Your task to perform on an android device: turn off translation in the chrome app Image 0: 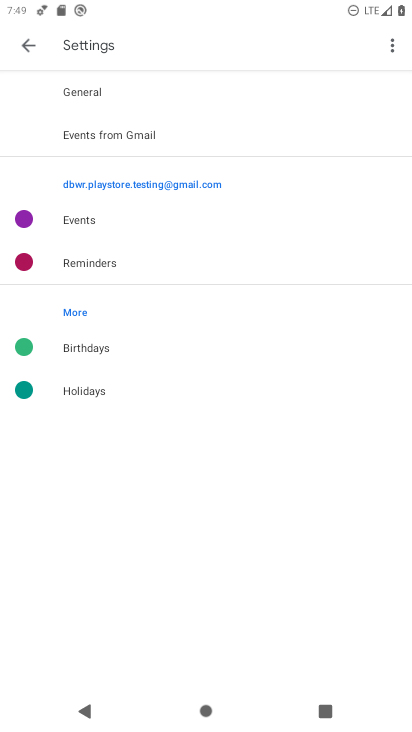
Step 0: press home button
Your task to perform on an android device: turn off translation in the chrome app Image 1: 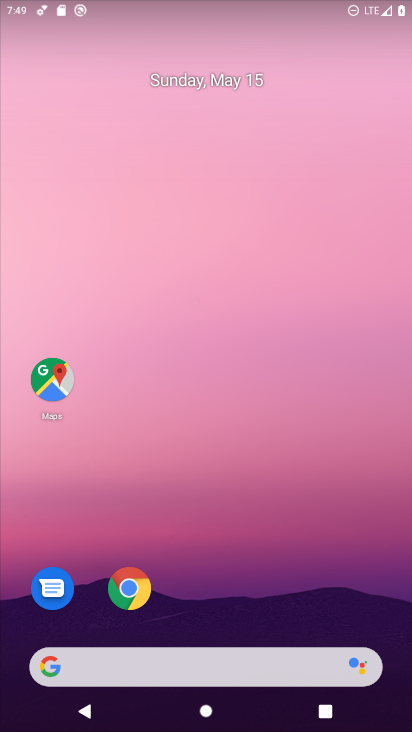
Step 1: drag from (340, 594) to (263, 87)
Your task to perform on an android device: turn off translation in the chrome app Image 2: 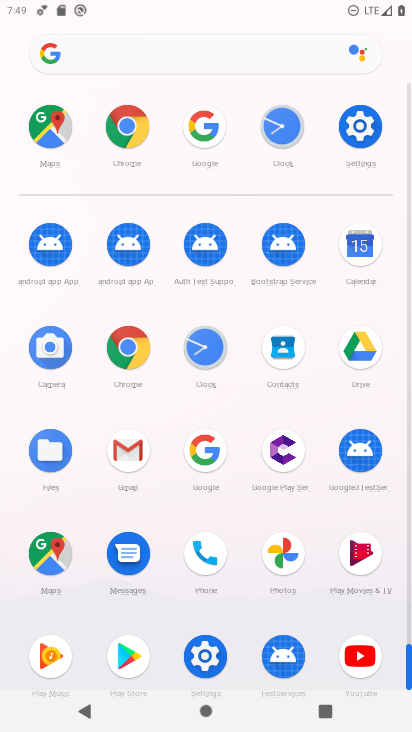
Step 2: click (136, 342)
Your task to perform on an android device: turn off translation in the chrome app Image 3: 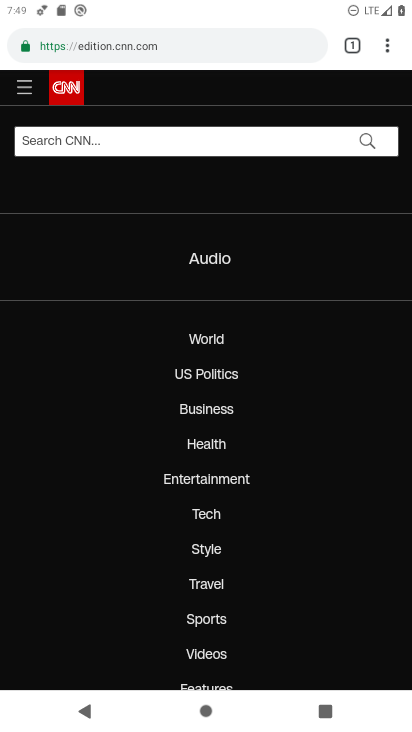
Step 3: press back button
Your task to perform on an android device: turn off translation in the chrome app Image 4: 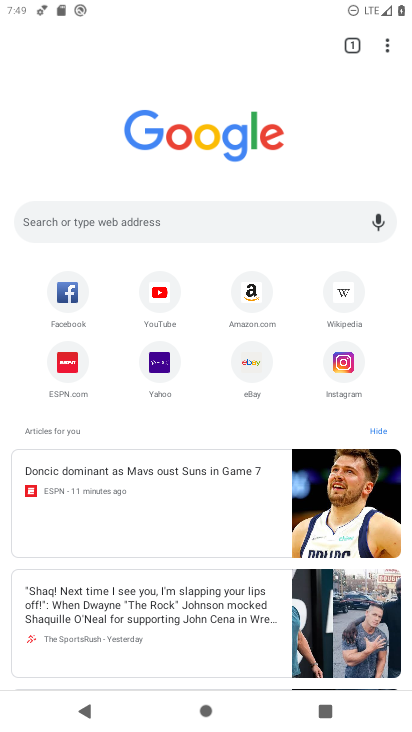
Step 4: click (388, 41)
Your task to perform on an android device: turn off translation in the chrome app Image 5: 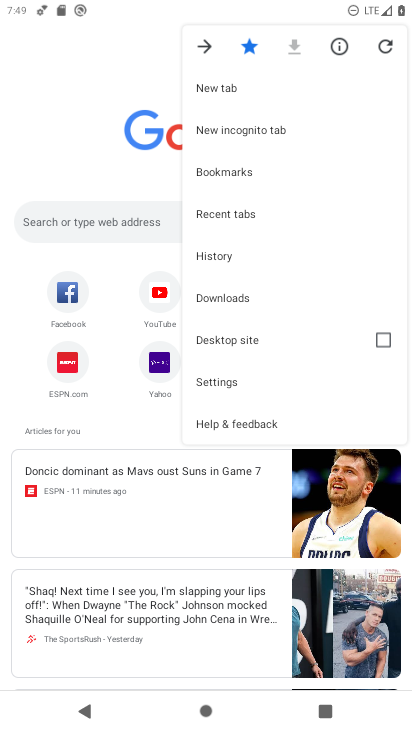
Step 5: click (242, 377)
Your task to perform on an android device: turn off translation in the chrome app Image 6: 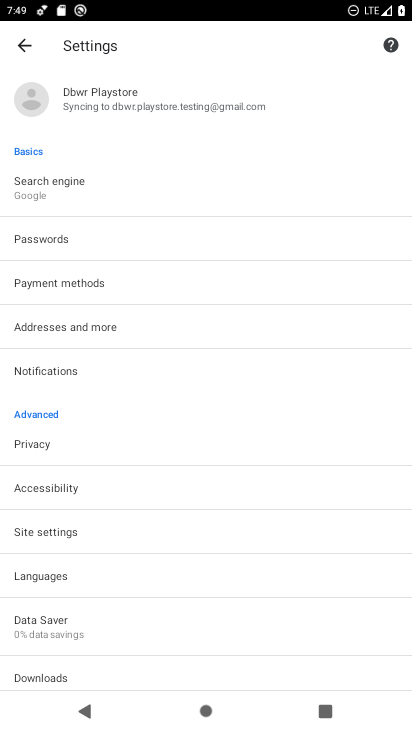
Step 6: click (92, 578)
Your task to perform on an android device: turn off translation in the chrome app Image 7: 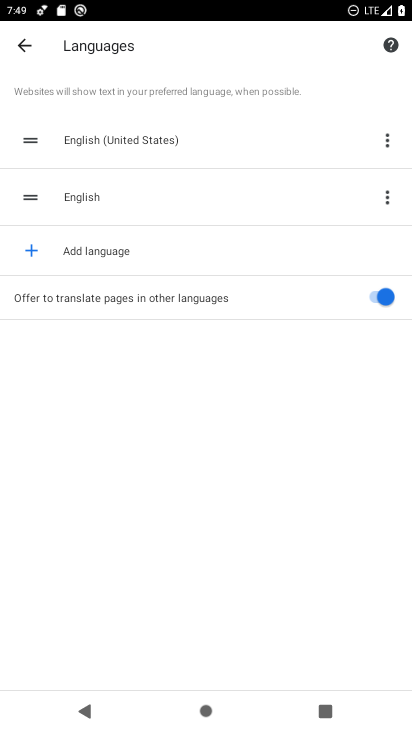
Step 7: click (333, 275)
Your task to perform on an android device: turn off translation in the chrome app Image 8: 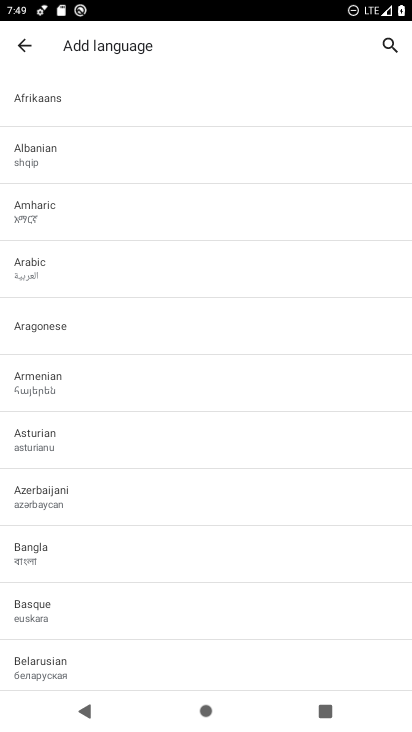
Step 8: press back button
Your task to perform on an android device: turn off translation in the chrome app Image 9: 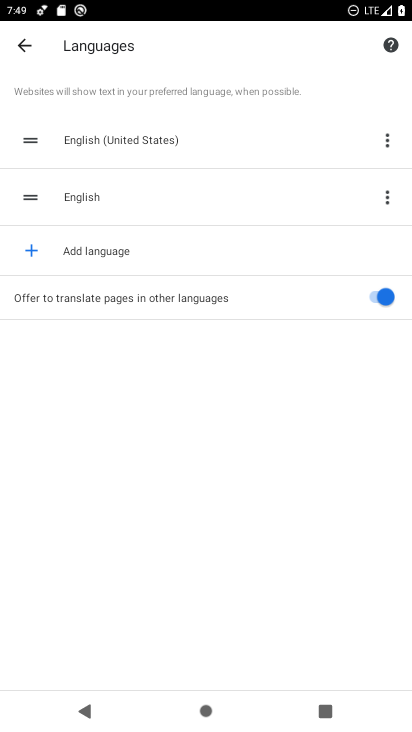
Step 9: click (321, 298)
Your task to perform on an android device: turn off translation in the chrome app Image 10: 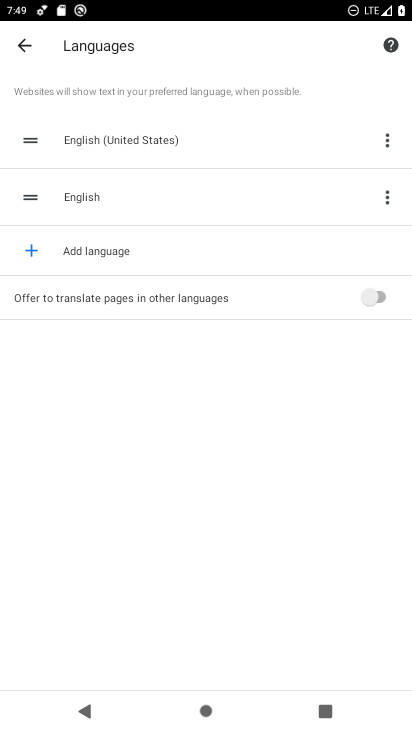
Step 10: task complete